Your task to perform on an android device: Go to Google maps Image 0: 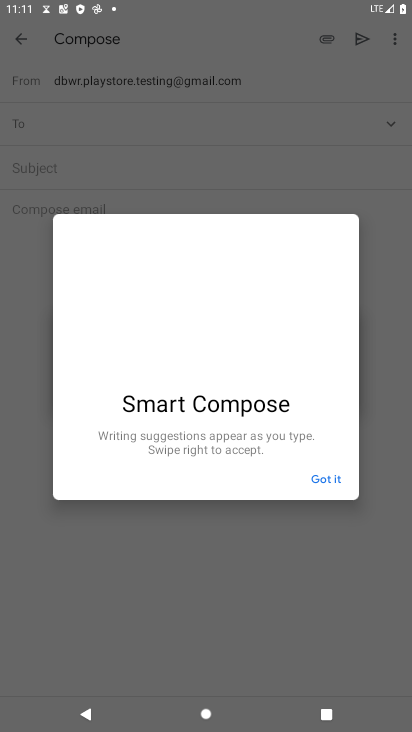
Step 0: press home button
Your task to perform on an android device: Go to Google maps Image 1: 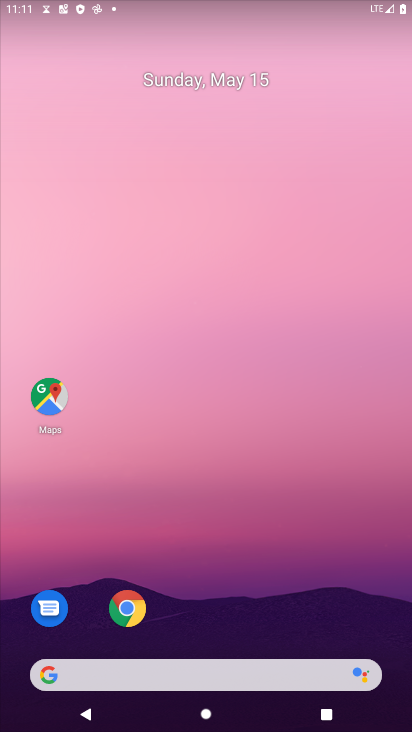
Step 1: drag from (335, 543) to (332, 46)
Your task to perform on an android device: Go to Google maps Image 2: 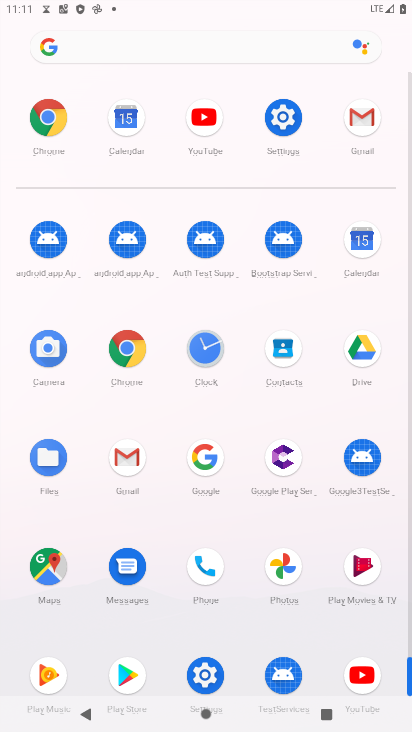
Step 2: click (57, 560)
Your task to perform on an android device: Go to Google maps Image 3: 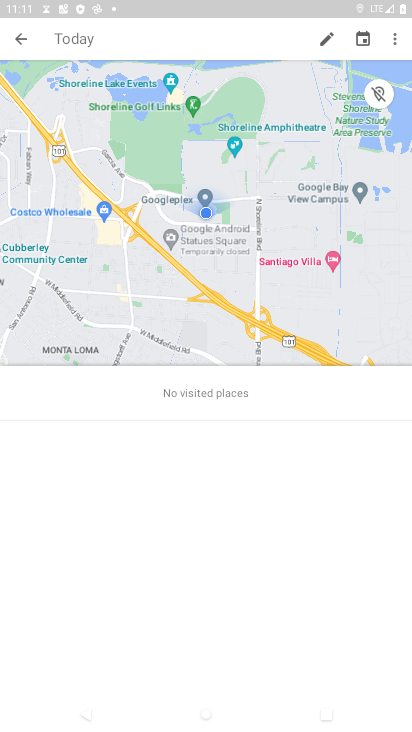
Step 3: task complete